Your task to perform on an android device: uninstall "Duolingo: language lessons" Image 0: 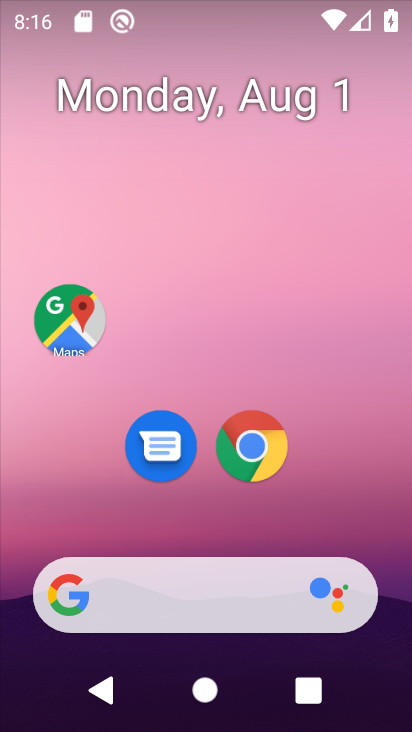
Step 0: drag from (211, 481) to (202, 96)
Your task to perform on an android device: uninstall "Duolingo: language lessons" Image 1: 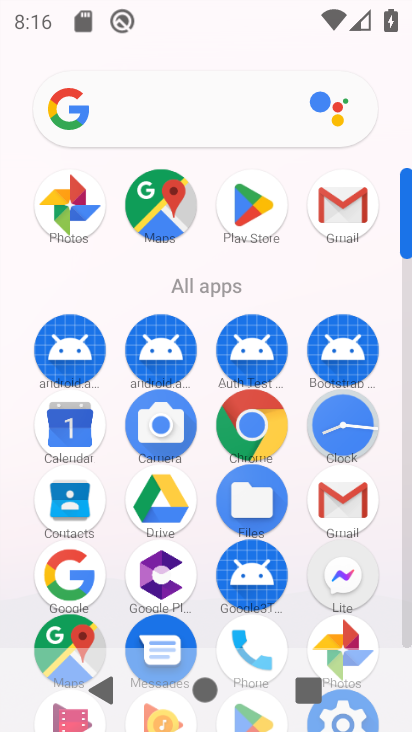
Step 1: click (246, 190)
Your task to perform on an android device: uninstall "Duolingo: language lessons" Image 2: 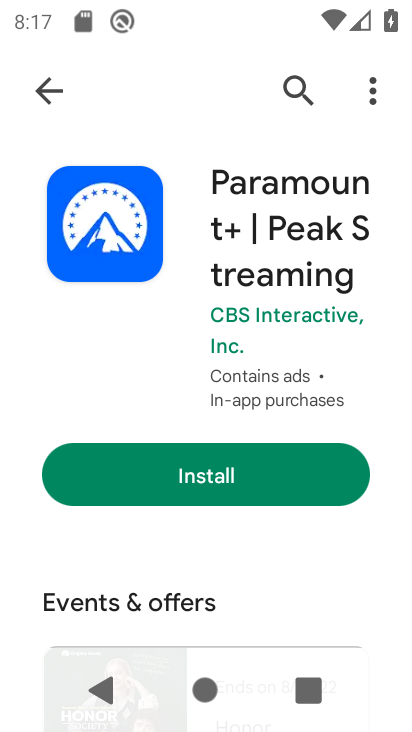
Step 2: click (301, 72)
Your task to perform on an android device: uninstall "Duolingo: language lessons" Image 3: 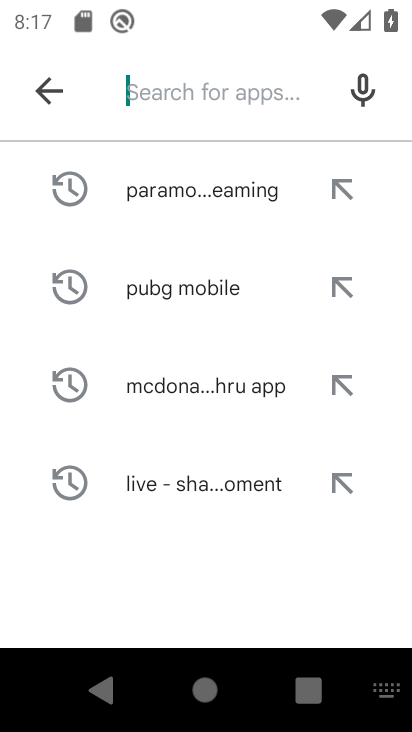
Step 3: type "Duolingo: language lessons"
Your task to perform on an android device: uninstall "Duolingo: language lessons" Image 4: 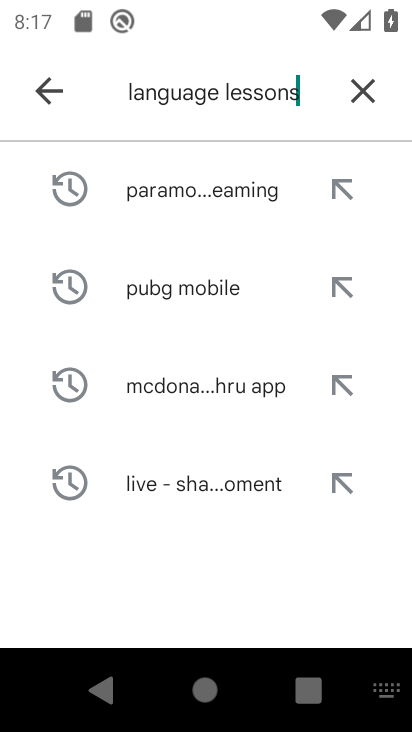
Step 4: type ""
Your task to perform on an android device: uninstall "Duolingo: language lessons" Image 5: 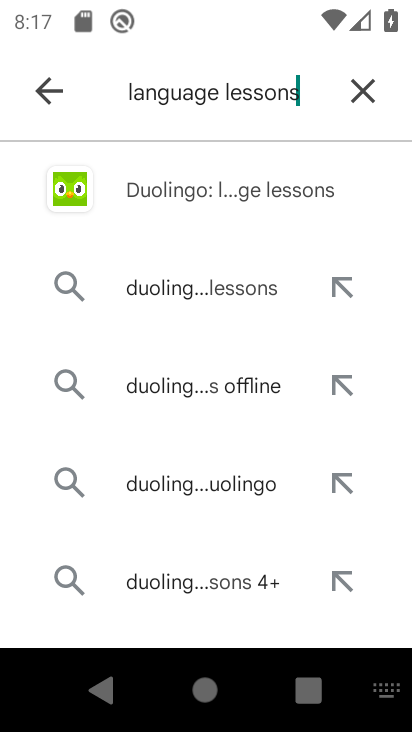
Step 5: click (154, 200)
Your task to perform on an android device: uninstall "Duolingo: language lessons" Image 6: 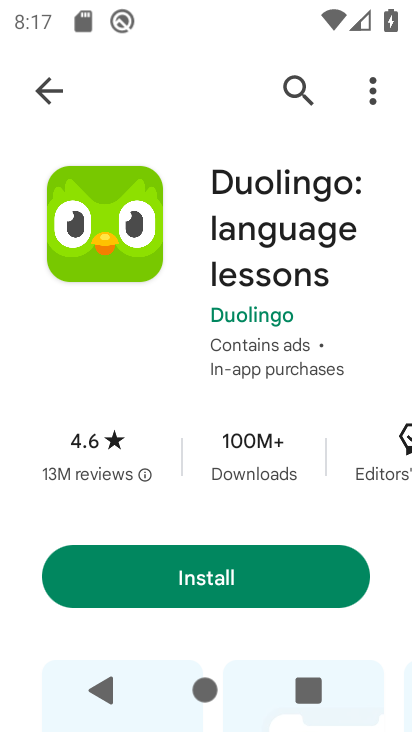
Step 6: task complete